Your task to perform on an android device: Open Reddit.com Image 0: 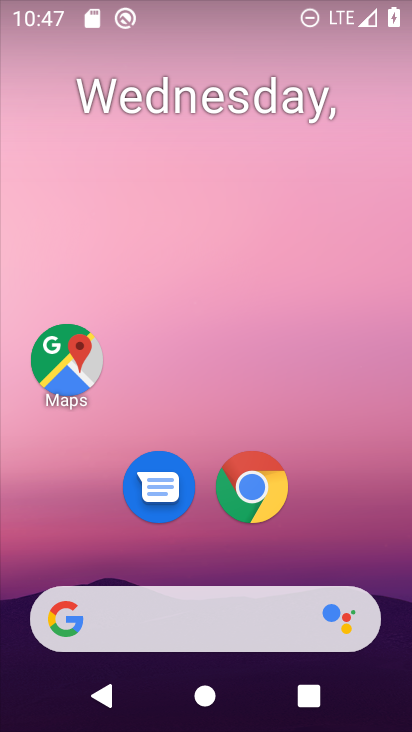
Step 0: click (259, 487)
Your task to perform on an android device: Open Reddit.com Image 1: 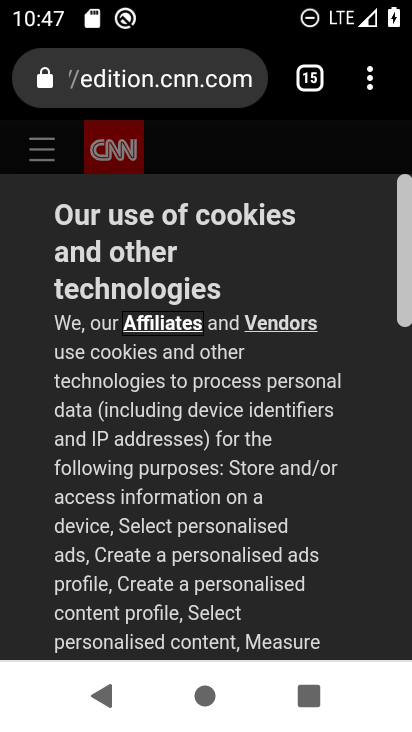
Step 1: click (365, 83)
Your task to perform on an android device: Open Reddit.com Image 2: 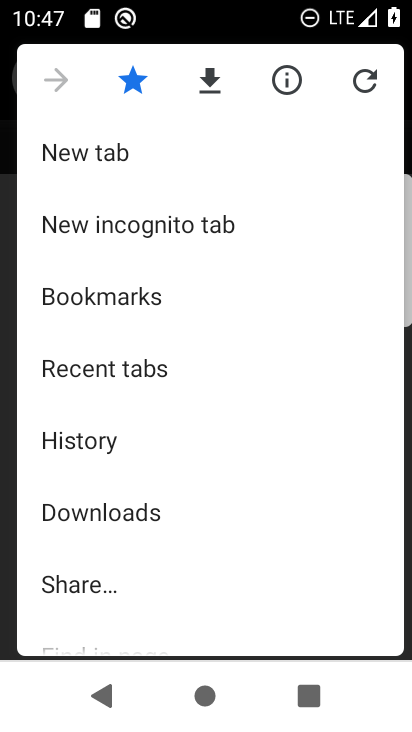
Step 2: click (111, 143)
Your task to perform on an android device: Open Reddit.com Image 3: 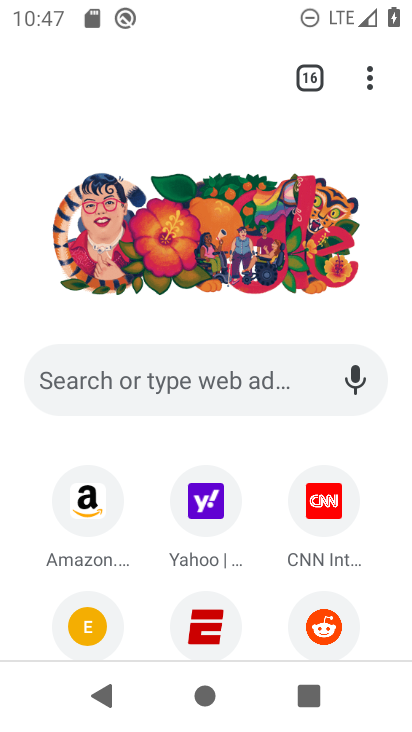
Step 3: click (325, 623)
Your task to perform on an android device: Open Reddit.com Image 4: 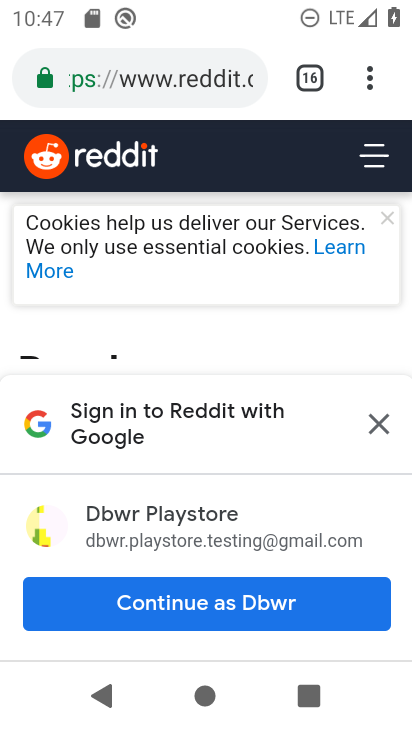
Step 4: task complete